Your task to perform on an android device: uninstall "Firefox Browser" Image 0: 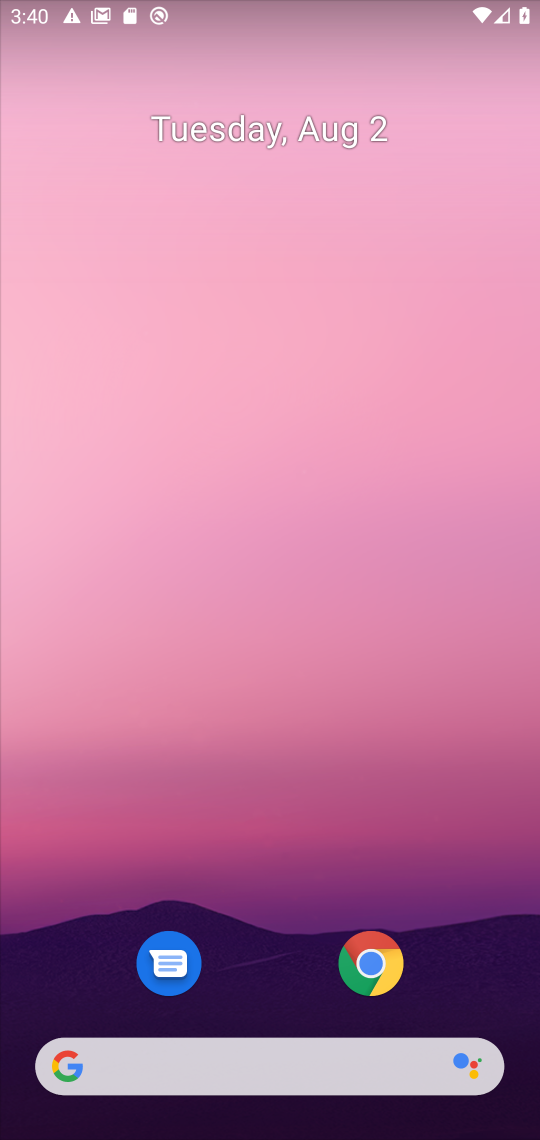
Step 0: drag from (212, 975) to (223, 191)
Your task to perform on an android device: uninstall "Firefox Browser" Image 1: 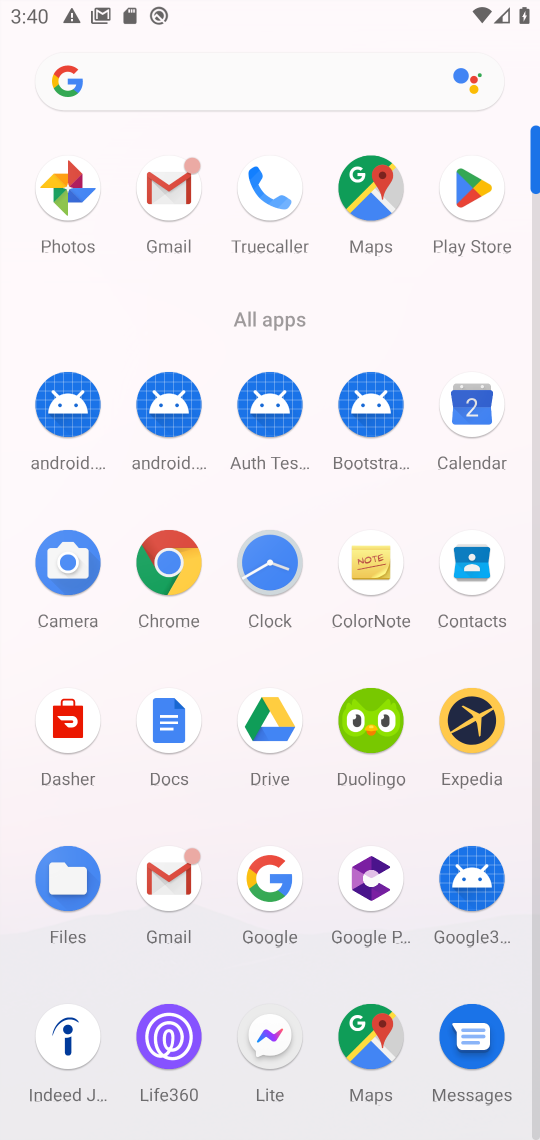
Step 1: click (457, 196)
Your task to perform on an android device: uninstall "Firefox Browser" Image 2: 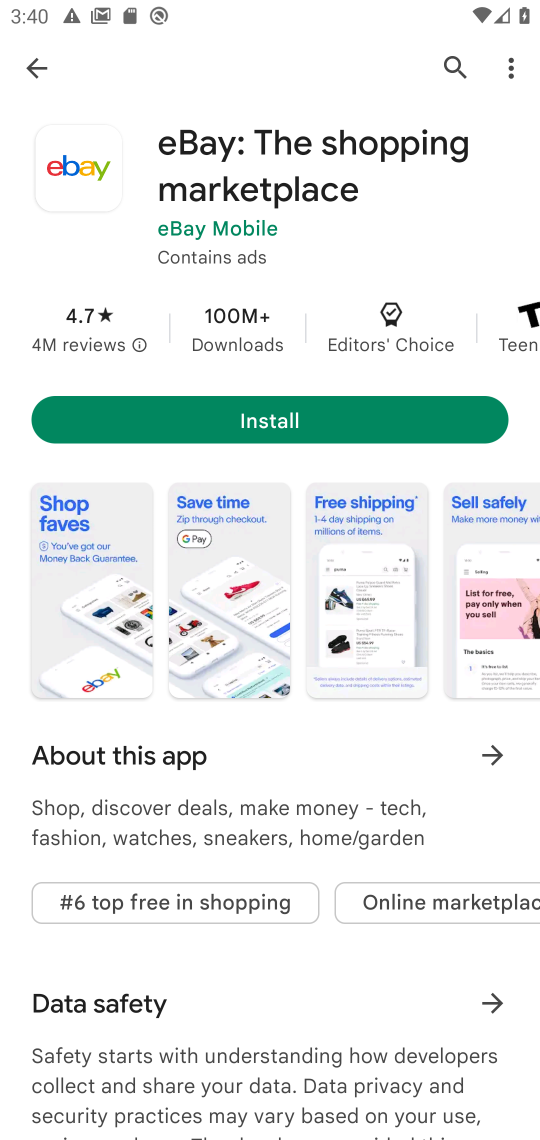
Step 2: click (445, 76)
Your task to perform on an android device: uninstall "Firefox Browser" Image 3: 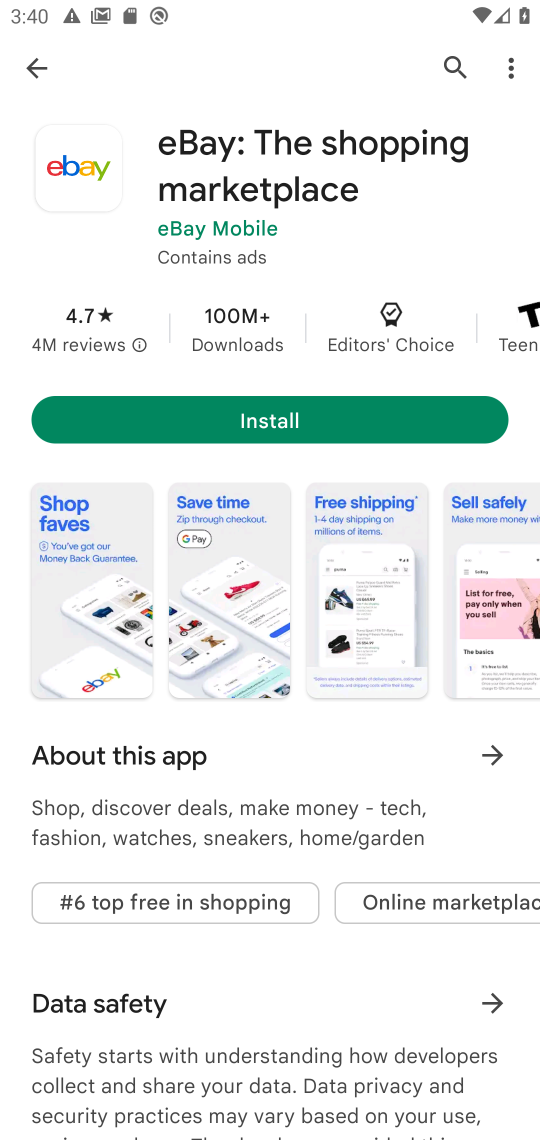
Step 3: click (452, 67)
Your task to perform on an android device: uninstall "Firefox Browser" Image 4: 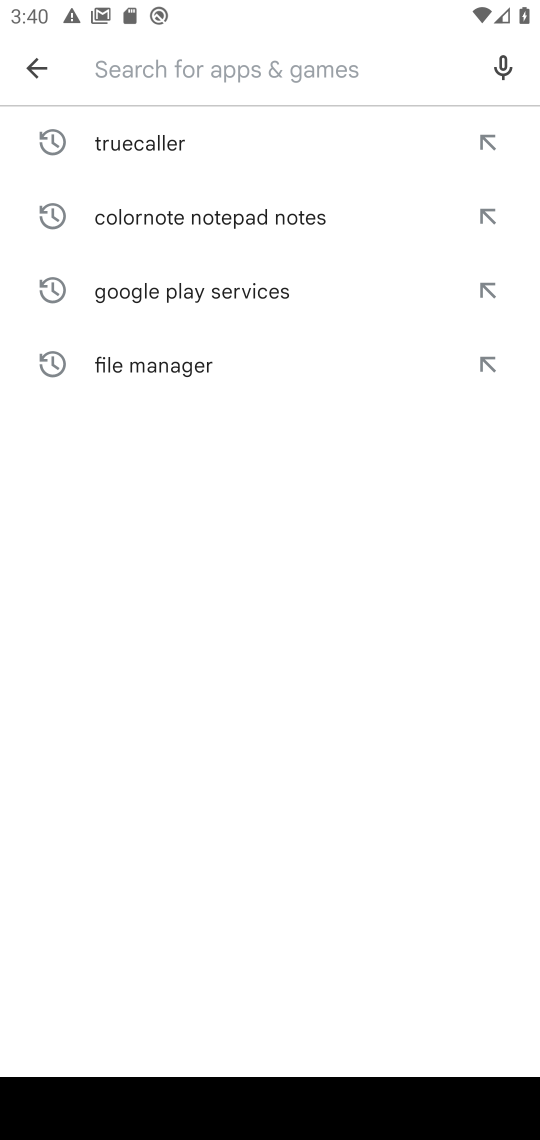
Step 4: type "Firefox Browser"
Your task to perform on an android device: uninstall "Firefox Browser" Image 5: 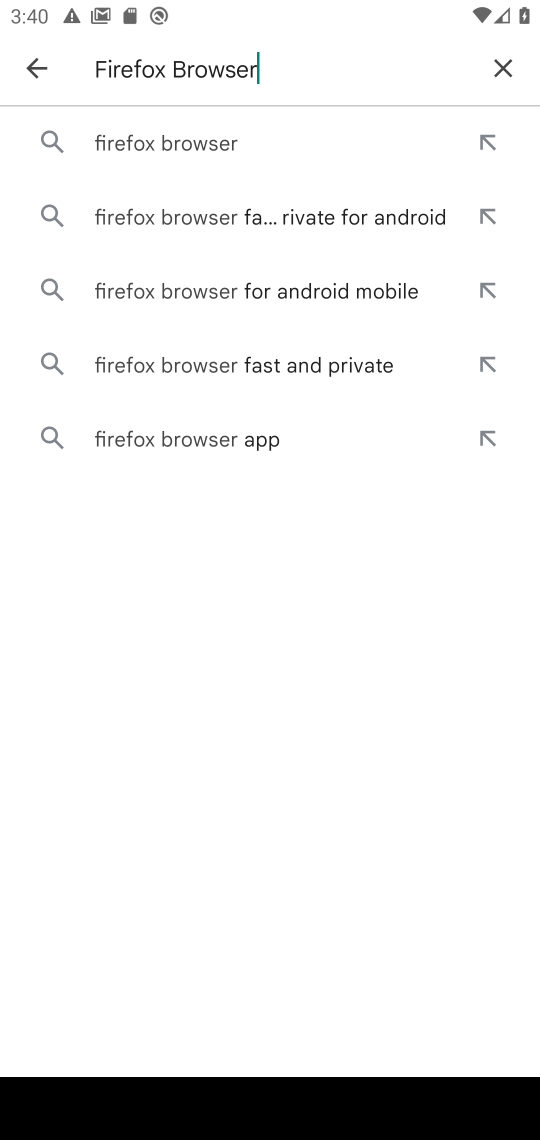
Step 5: click (126, 142)
Your task to perform on an android device: uninstall "Firefox Browser" Image 6: 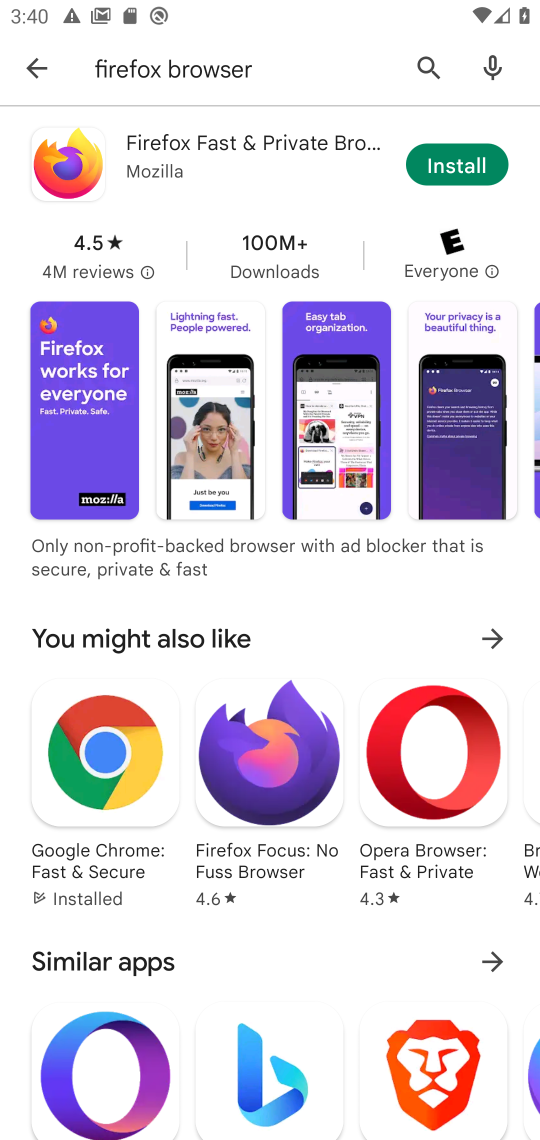
Step 6: task complete